Your task to perform on an android device: Do I have any events this weekend? Image 0: 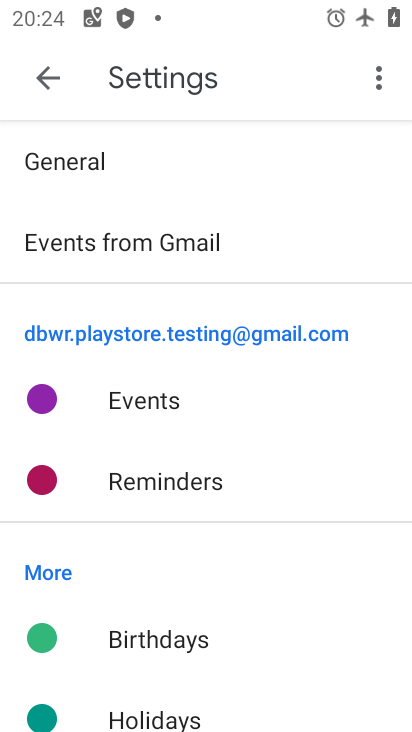
Step 0: press home button
Your task to perform on an android device: Do I have any events this weekend? Image 1: 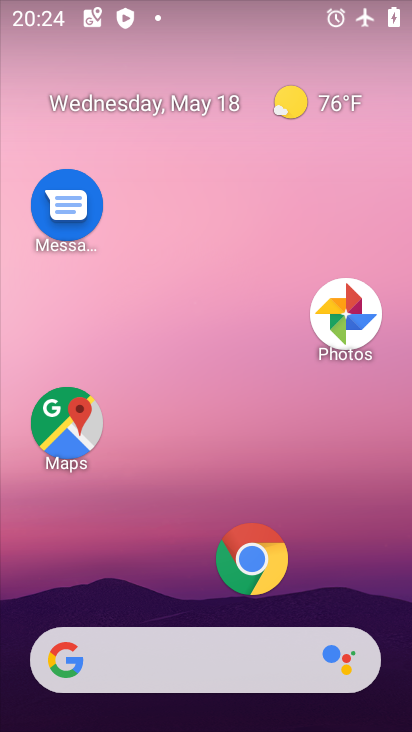
Step 1: drag from (278, 614) to (239, 4)
Your task to perform on an android device: Do I have any events this weekend? Image 2: 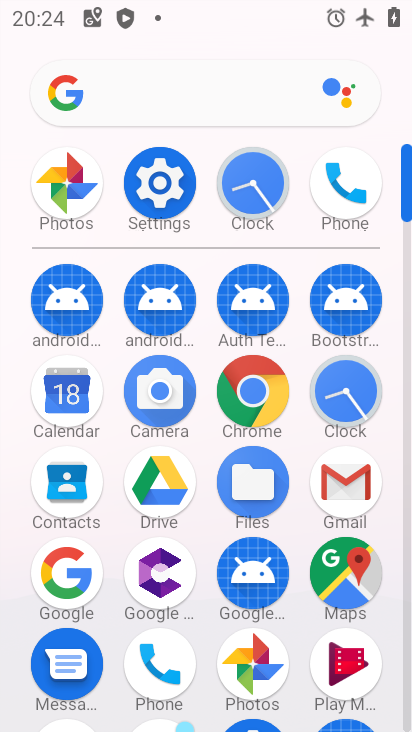
Step 2: click (66, 403)
Your task to perform on an android device: Do I have any events this weekend? Image 3: 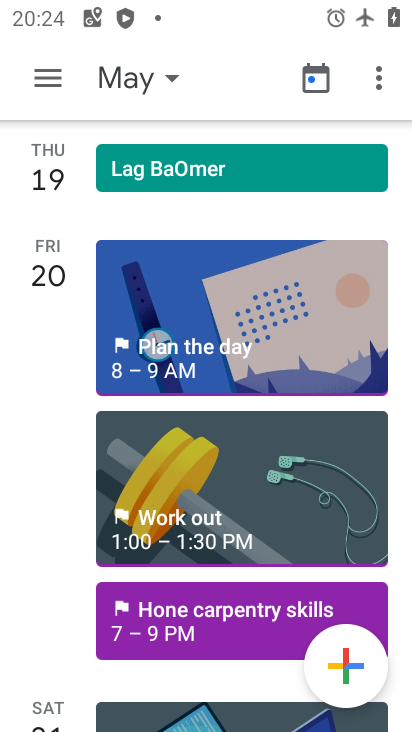
Step 3: click (328, 80)
Your task to perform on an android device: Do I have any events this weekend? Image 4: 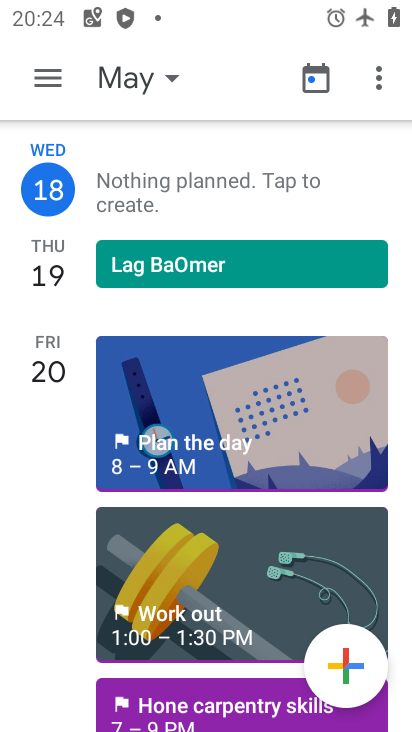
Step 4: click (50, 79)
Your task to perform on an android device: Do I have any events this weekend? Image 5: 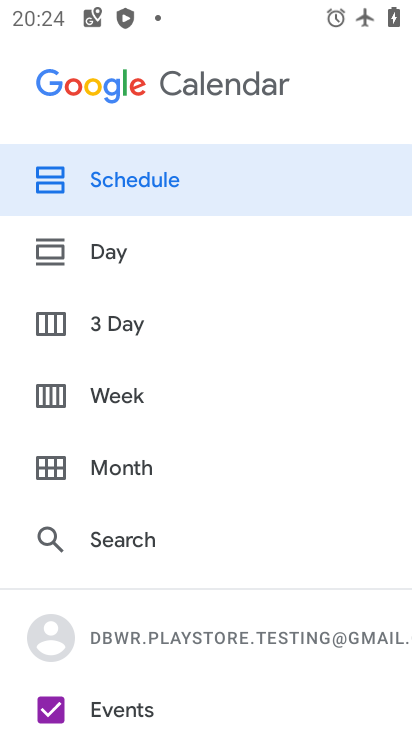
Step 5: click (127, 411)
Your task to perform on an android device: Do I have any events this weekend? Image 6: 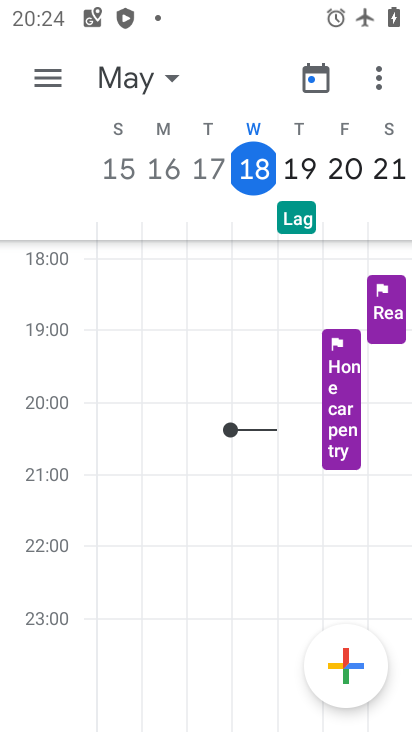
Step 6: click (283, 168)
Your task to perform on an android device: Do I have any events this weekend? Image 7: 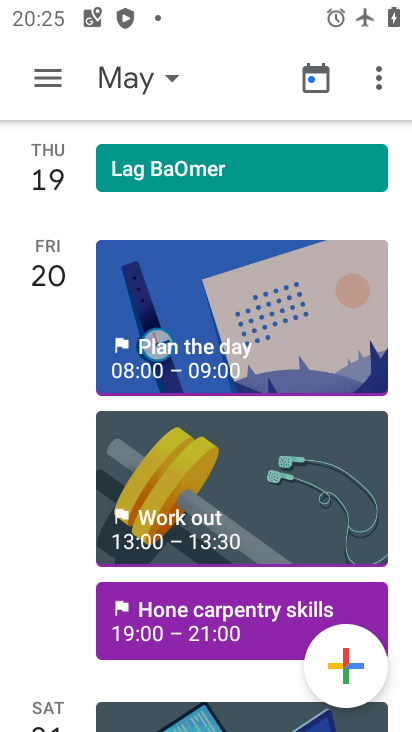
Step 7: task complete